Your task to perform on an android device: stop showing notifications on the lock screen Image 0: 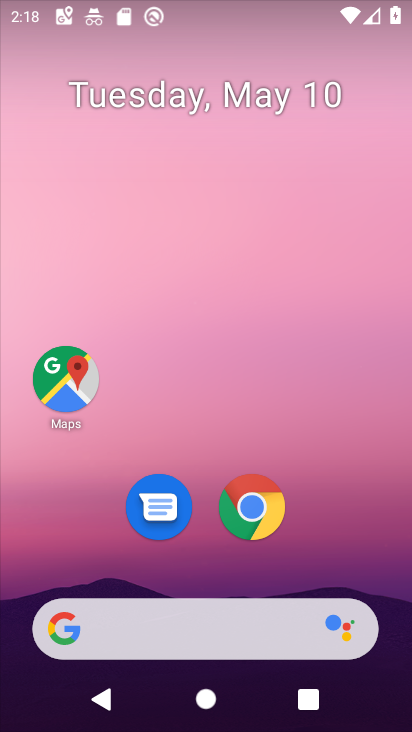
Step 0: drag from (181, 483) to (229, 119)
Your task to perform on an android device: stop showing notifications on the lock screen Image 1: 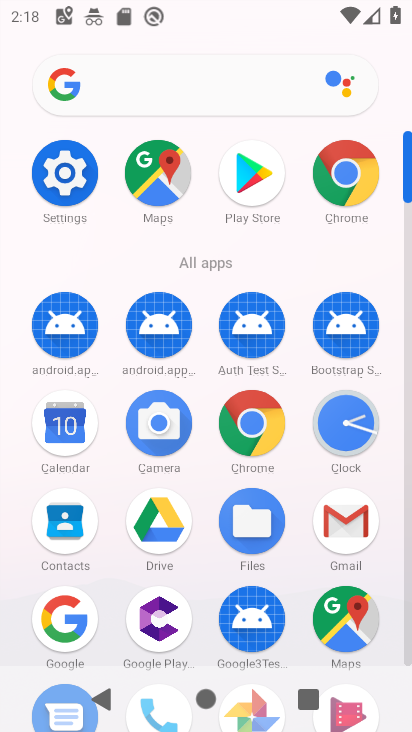
Step 1: drag from (204, 519) to (227, 262)
Your task to perform on an android device: stop showing notifications on the lock screen Image 2: 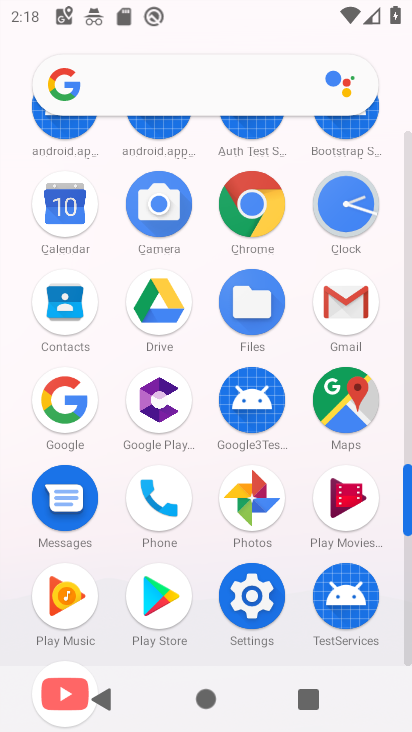
Step 2: click (241, 593)
Your task to perform on an android device: stop showing notifications on the lock screen Image 3: 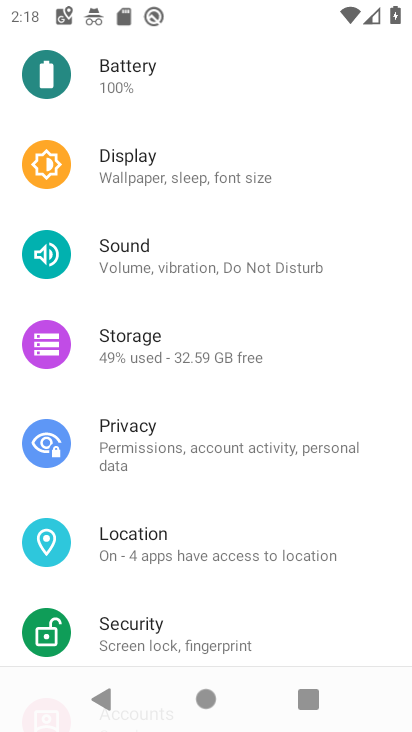
Step 3: drag from (197, 532) to (206, 585)
Your task to perform on an android device: stop showing notifications on the lock screen Image 4: 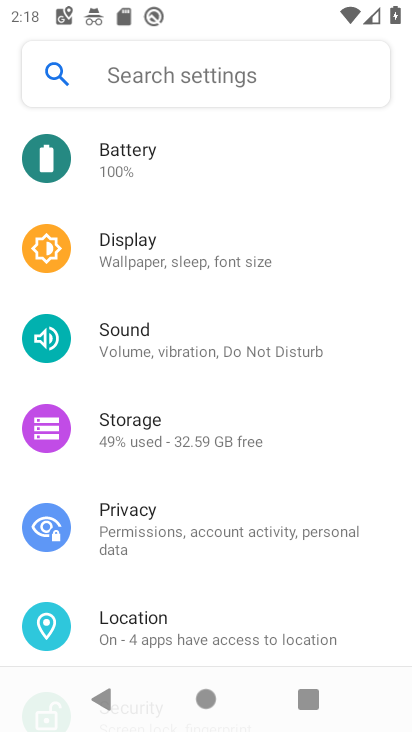
Step 4: drag from (168, 185) to (200, 366)
Your task to perform on an android device: stop showing notifications on the lock screen Image 5: 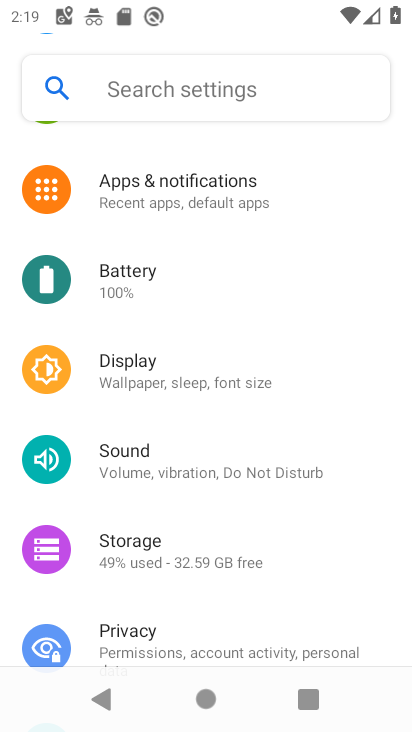
Step 5: click (164, 190)
Your task to perform on an android device: stop showing notifications on the lock screen Image 6: 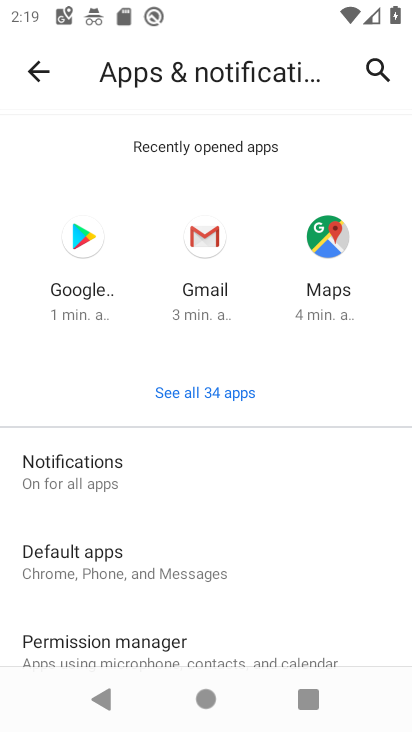
Step 6: click (88, 479)
Your task to perform on an android device: stop showing notifications on the lock screen Image 7: 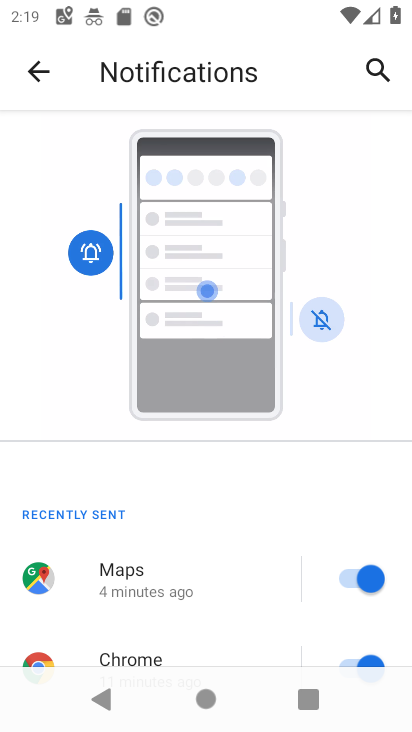
Step 7: drag from (215, 597) to (241, 243)
Your task to perform on an android device: stop showing notifications on the lock screen Image 8: 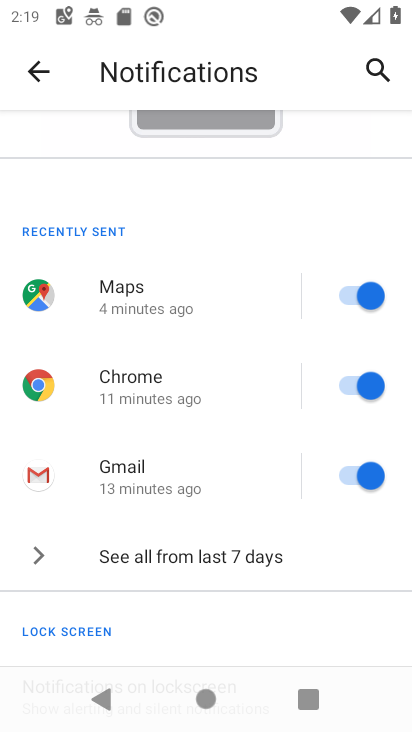
Step 8: drag from (126, 562) to (125, 307)
Your task to perform on an android device: stop showing notifications on the lock screen Image 9: 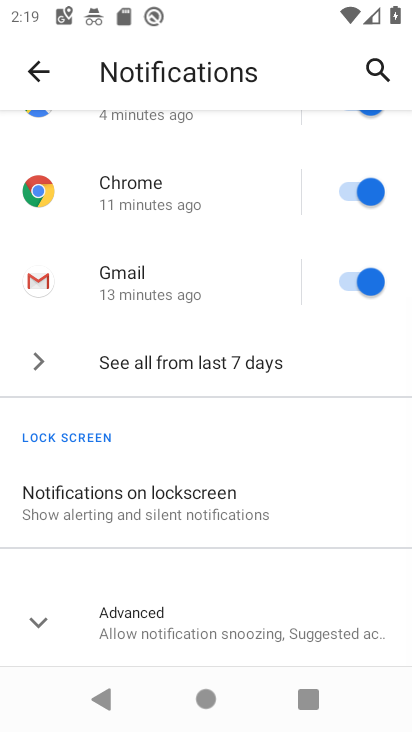
Step 9: click (63, 495)
Your task to perform on an android device: stop showing notifications on the lock screen Image 10: 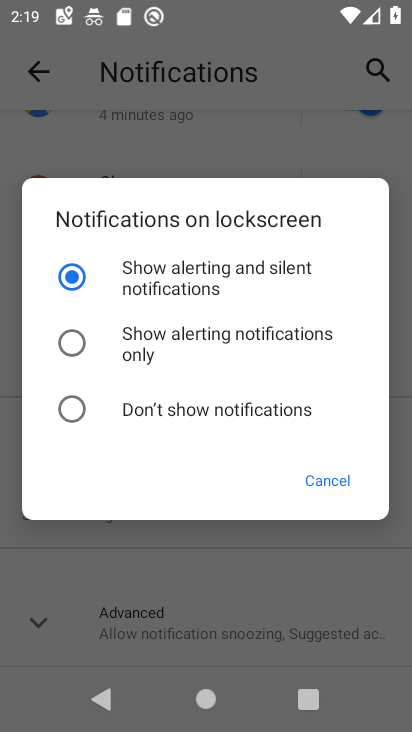
Step 10: click (169, 410)
Your task to perform on an android device: stop showing notifications on the lock screen Image 11: 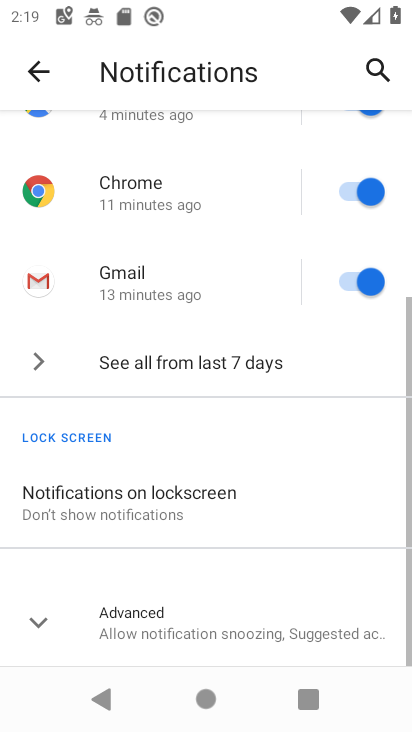
Step 11: task complete